Your task to perform on an android device: Clear the cart on amazon.com. Add razer blade to the cart on amazon.com, then select checkout. Image 0: 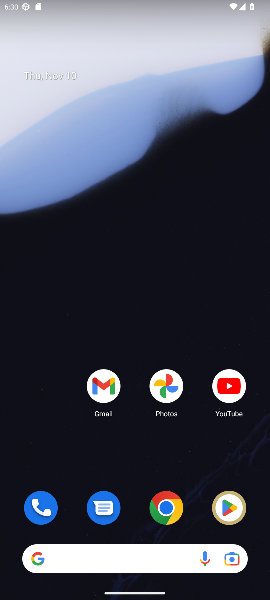
Step 0: click (170, 503)
Your task to perform on an android device: Clear the cart on amazon.com. Add razer blade to the cart on amazon.com, then select checkout. Image 1: 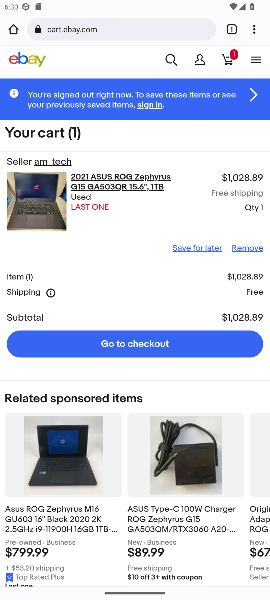
Step 1: click (109, 27)
Your task to perform on an android device: Clear the cart on amazon.com. Add razer blade to the cart on amazon.com, then select checkout. Image 2: 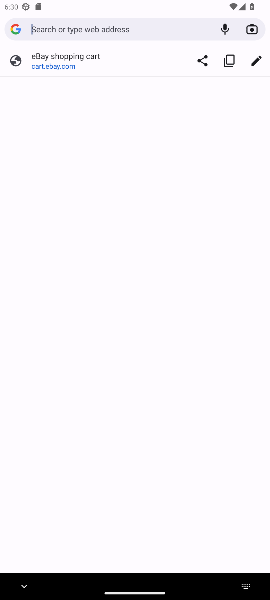
Step 2: type " amazon.com"
Your task to perform on an android device: Clear the cart on amazon.com. Add razer blade to the cart on amazon.com, then select checkout. Image 3: 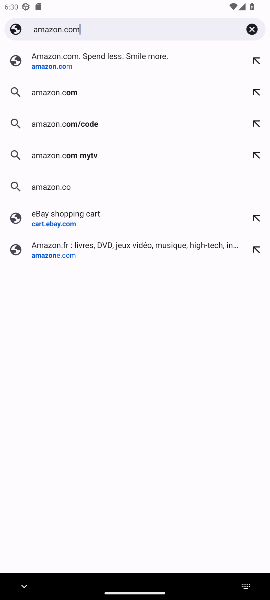
Step 3: press enter
Your task to perform on an android device: Clear the cart on amazon.com. Add razer blade to the cart on amazon.com, then select checkout. Image 4: 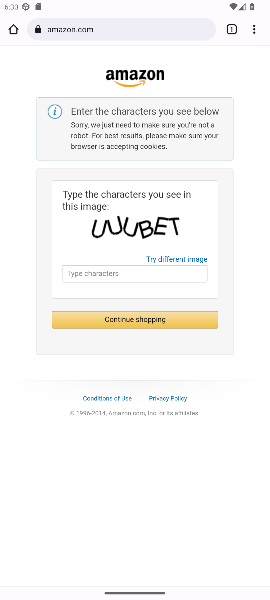
Step 4: click (111, 25)
Your task to perform on an android device: Clear the cart on amazon.com. Add razer blade to the cart on amazon.com, then select checkout. Image 5: 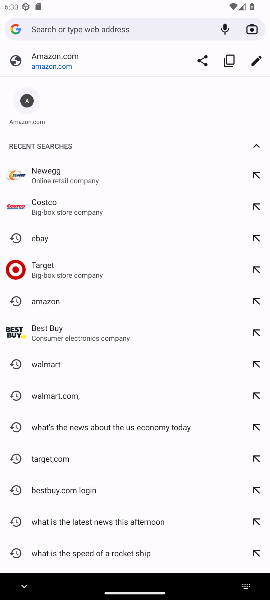
Step 5: click (36, 118)
Your task to perform on an android device: Clear the cart on amazon.com. Add razer blade to the cart on amazon.com, then select checkout. Image 6: 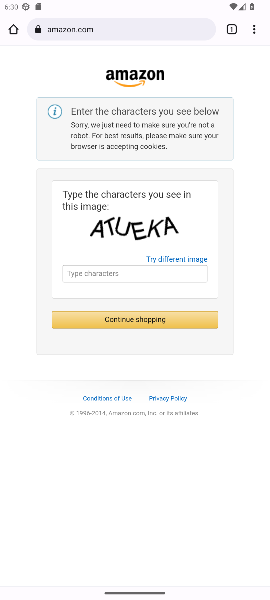
Step 6: click (110, 266)
Your task to perform on an android device: Clear the cart on amazon.com. Add razer blade to the cart on amazon.com, then select checkout. Image 7: 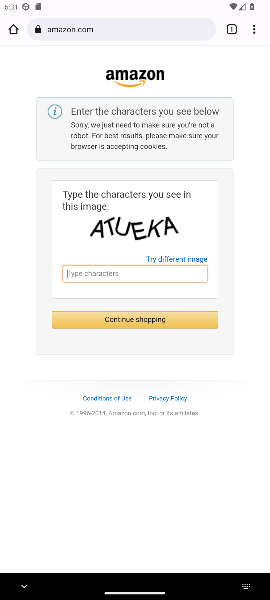
Step 7: type "ATUEKA"
Your task to perform on an android device: Clear the cart on amazon.com. Add razer blade to the cart on amazon.com, then select checkout. Image 8: 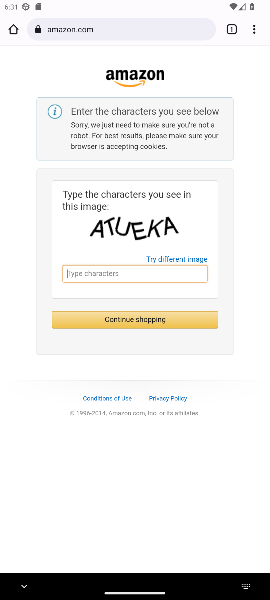
Step 8: press enter
Your task to perform on an android device: Clear the cart on amazon.com. Add razer blade to the cart on amazon.com, then select checkout. Image 9: 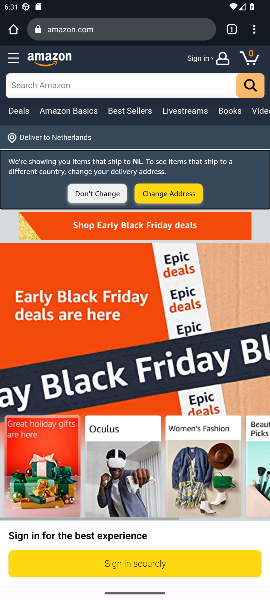
Step 9: click (49, 86)
Your task to perform on an android device: Clear the cart on amazon.com. Add razer blade to the cart on amazon.com, then select checkout. Image 10: 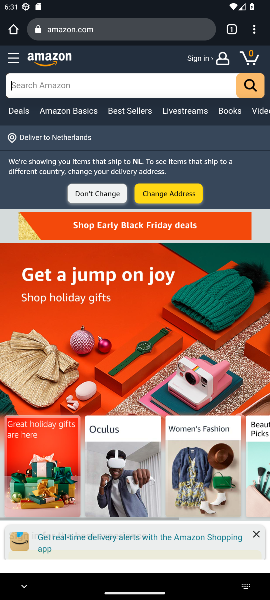
Step 10: click (24, 84)
Your task to perform on an android device: Clear the cart on amazon.com. Add razer blade to the cart on amazon.com, then select checkout. Image 11: 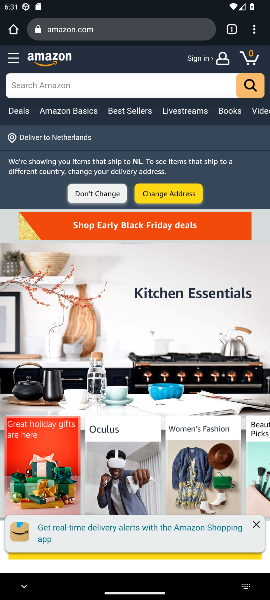
Step 11: type "razer blade "
Your task to perform on an android device: Clear the cart on amazon.com. Add razer blade to the cart on amazon.com, then select checkout. Image 12: 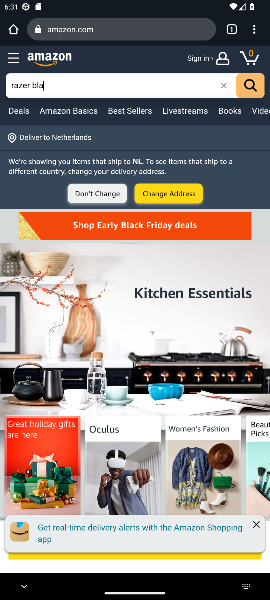
Step 12: press enter
Your task to perform on an android device: Clear the cart on amazon.com. Add razer blade to the cart on amazon.com, then select checkout. Image 13: 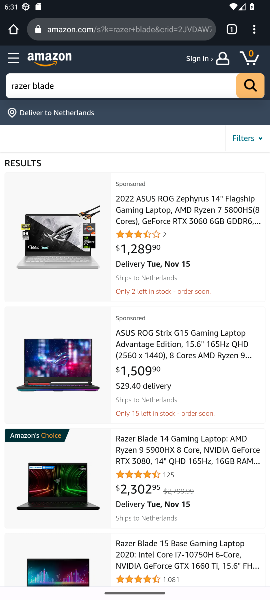
Step 13: click (180, 454)
Your task to perform on an android device: Clear the cart on amazon.com. Add razer blade to the cart on amazon.com, then select checkout. Image 14: 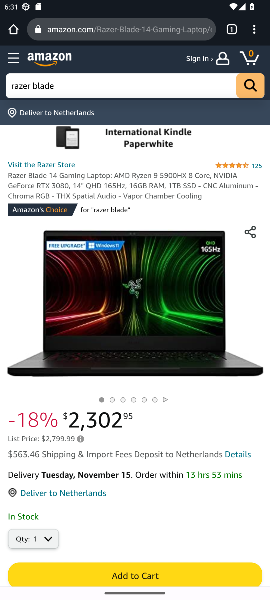
Step 14: click (139, 574)
Your task to perform on an android device: Clear the cart on amazon.com. Add razer blade to the cart on amazon.com, then select checkout. Image 15: 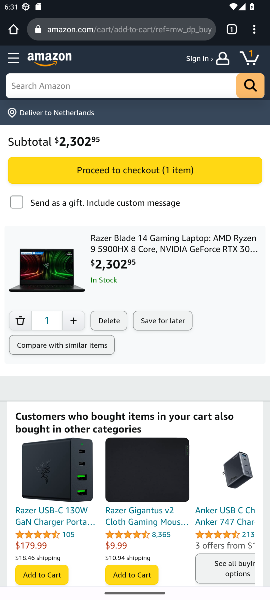
Step 15: click (149, 168)
Your task to perform on an android device: Clear the cart on amazon.com. Add razer blade to the cart on amazon.com, then select checkout. Image 16: 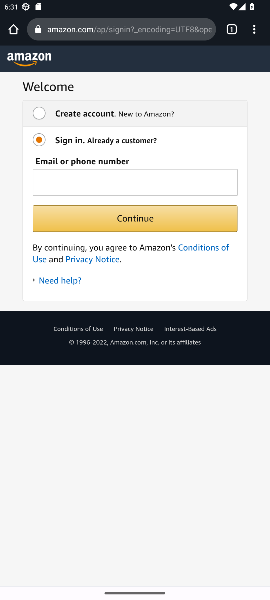
Step 16: task complete